Your task to perform on an android device: Go to Yahoo.com Image 0: 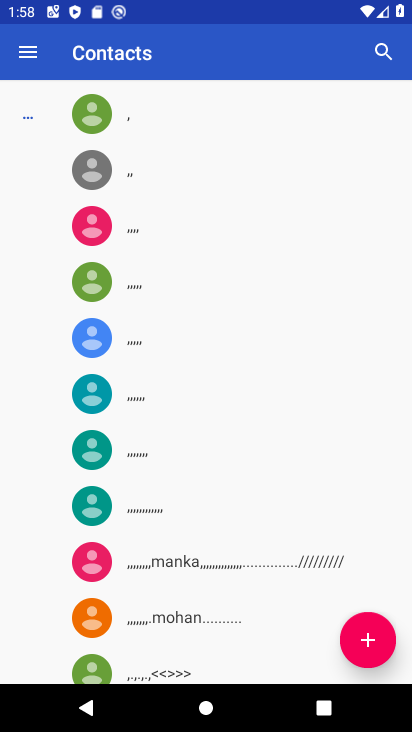
Step 0: press home button
Your task to perform on an android device: Go to Yahoo.com Image 1: 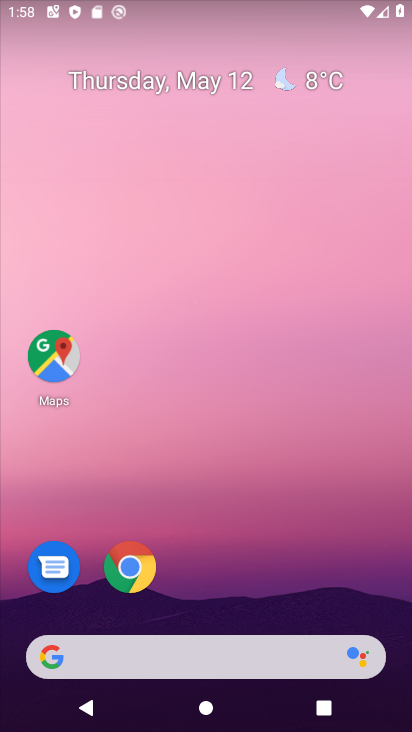
Step 1: click (124, 560)
Your task to perform on an android device: Go to Yahoo.com Image 2: 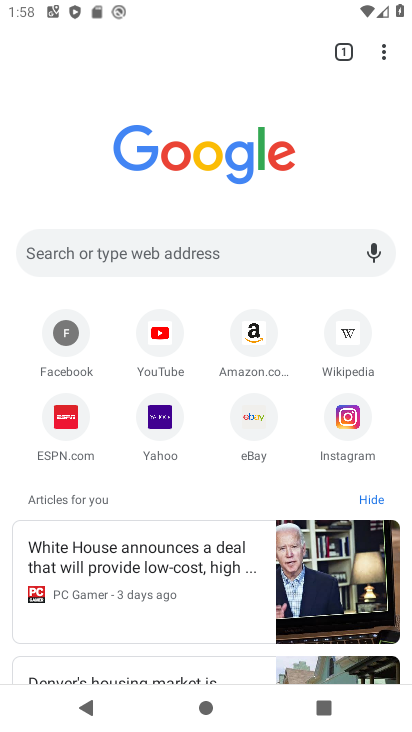
Step 2: click (157, 414)
Your task to perform on an android device: Go to Yahoo.com Image 3: 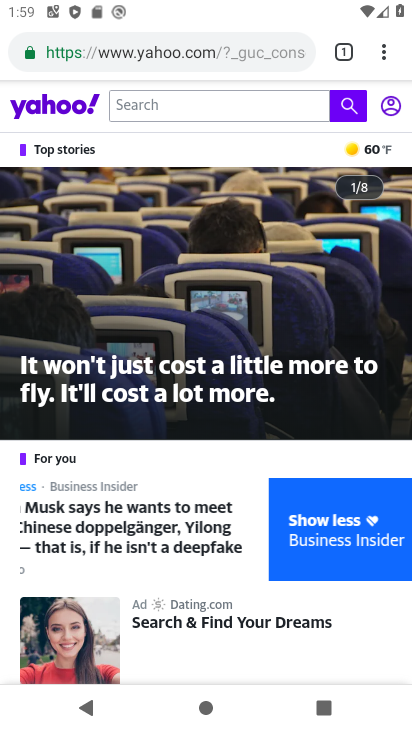
Step 3: task complete